Your task to perform on an android device: change your default location settings in chrome Image 0: 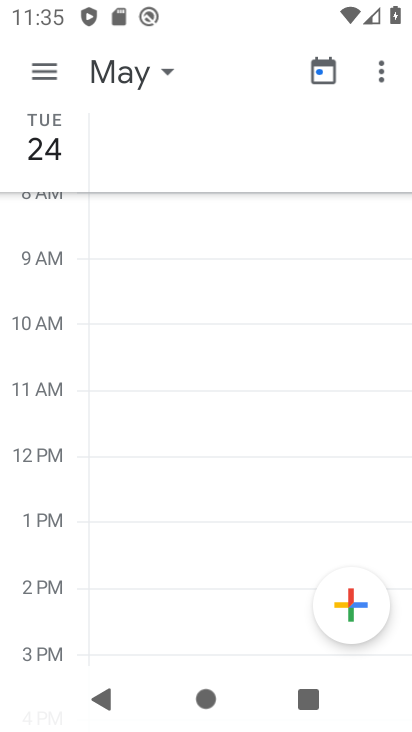
Step 0: press home button
Your task to perform on an android device: change your default location settings in chrome Image 1: 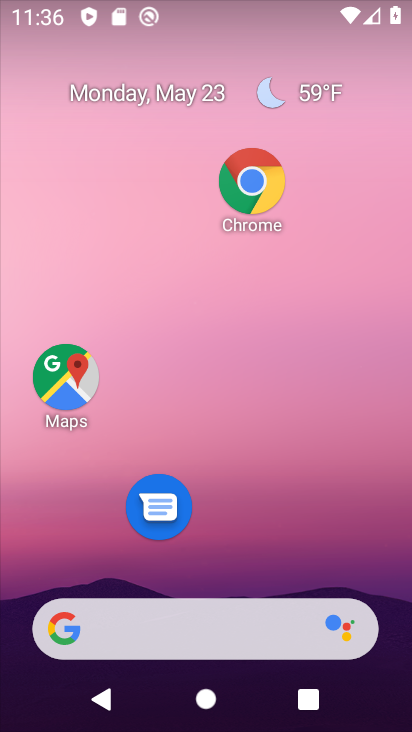
Step 1: drag from (361, 545) to (348, 215)
Your task to perform on an android device: change your default location settings in chrome Image 2: 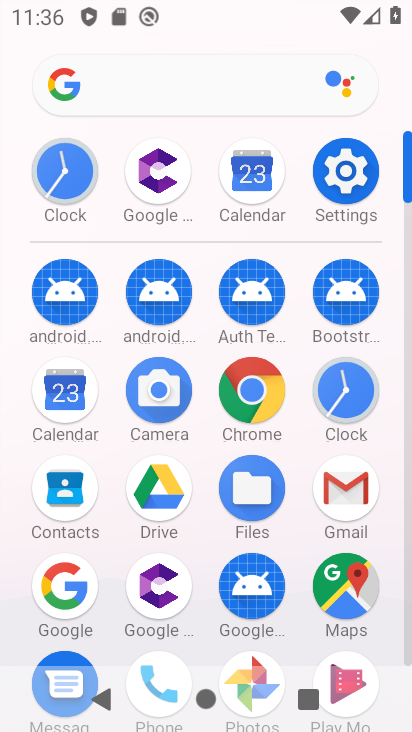
Step 2: click (265, 393)
Your task to perform on an android device: change your default location settings in chrome Image 3: 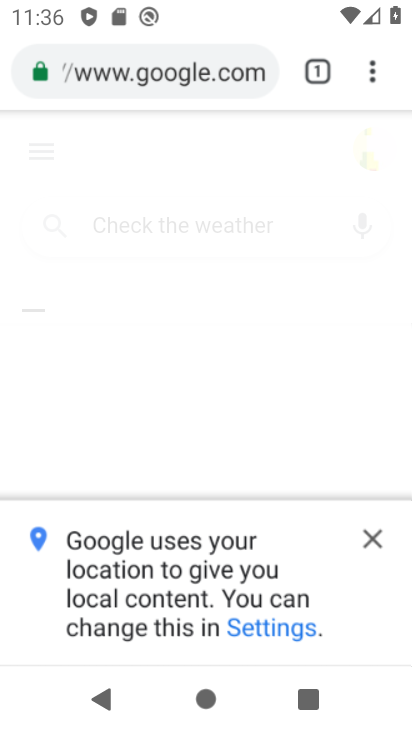
Step 3: click (376, 69)
Your task to perform on an android device: change your default location settings in chrome Image 4: 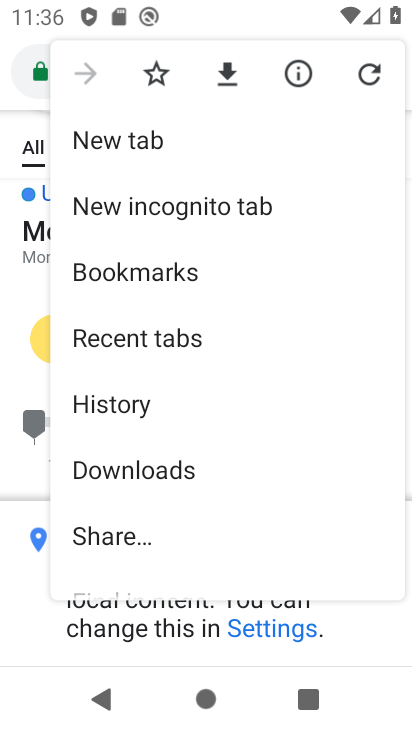
Step 4: drag from (202, 522) to (241, 183)
Your task to perform on an android device: change your default location settings in chrome Image 5: 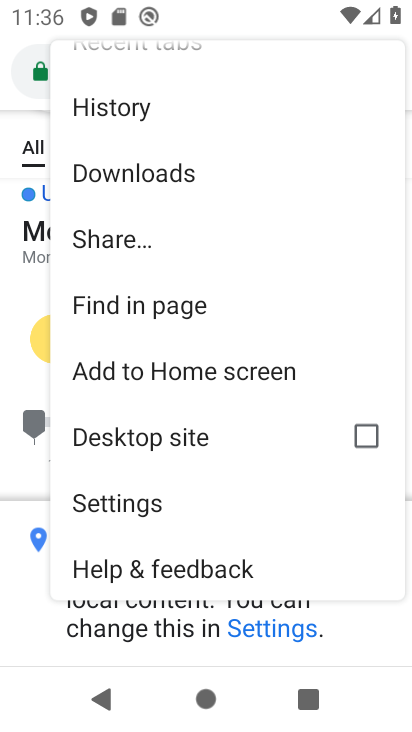
Step 5: click (134, 495)
Your task to perform on an android device: change your default location settings in chrome Image 6: 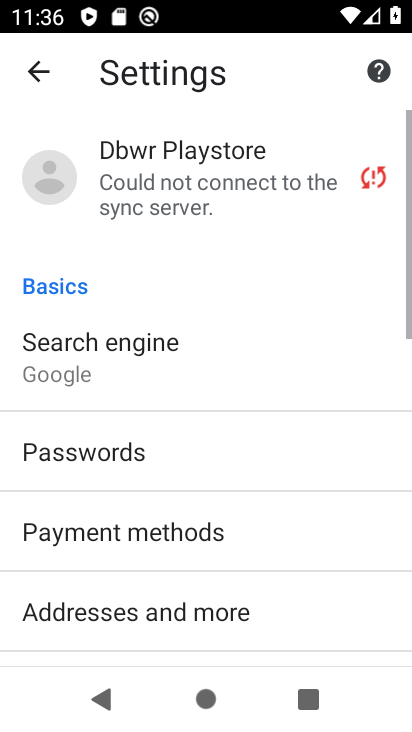
Step 6: drag from (233, 537) to (256, 212)
Your task to perform on an android device: change your default location settings in chrome Image 7: 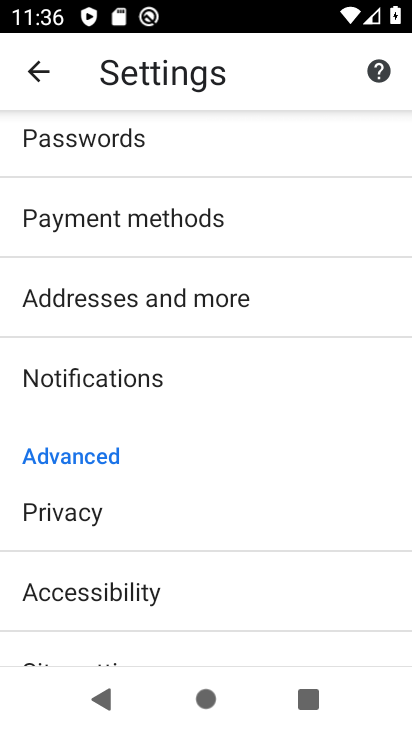
Step 7: drag from (115, 167) to (85, 569)
Your task to perform on an android device: change your default location settings in chrome Image 8: 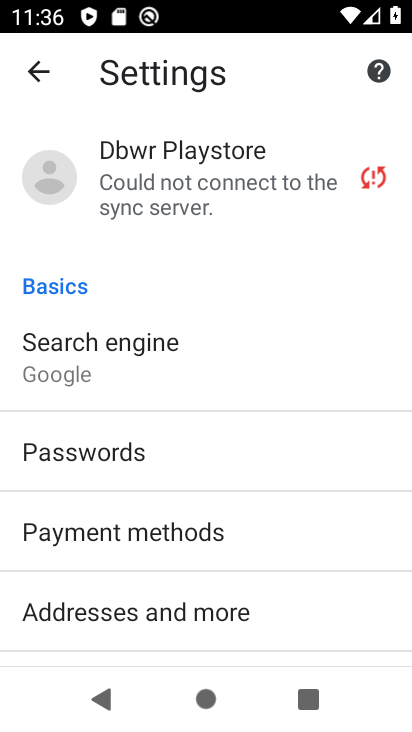
Step 8: click (146, 368)
Your task to perform on an android device: change your default location settings in chrome Image 9: 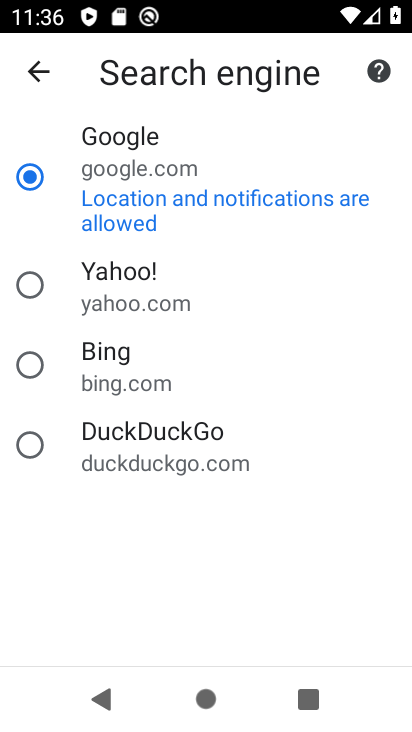
Step 9: click (133, 351)
Your task to perform on an android device: change your default location settings in chrome Image 10: 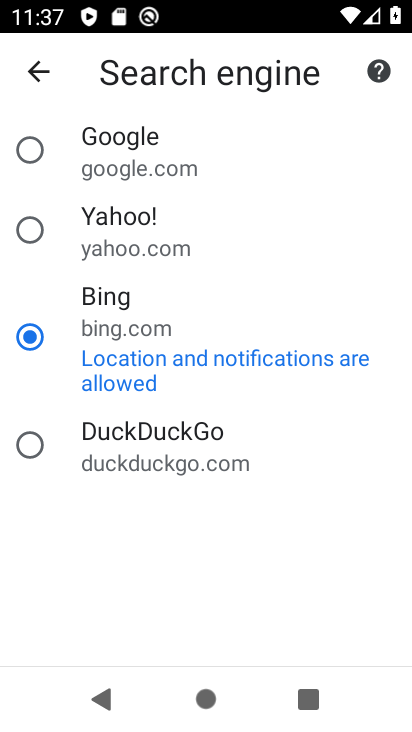
Step 10: task complete